Your task to perform on an android device: choose inbox layout in the gmail app Image 0: 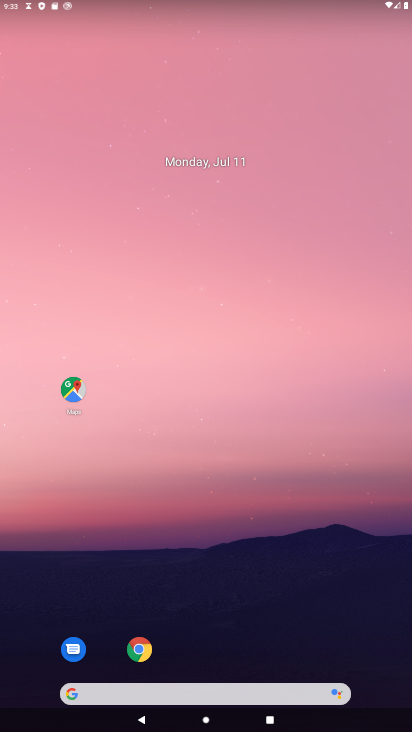
Step 0: drag from (201, 641) to (168, 10)
Your task to perform on an android device: choose inbox layout in the gmail app Image 1: 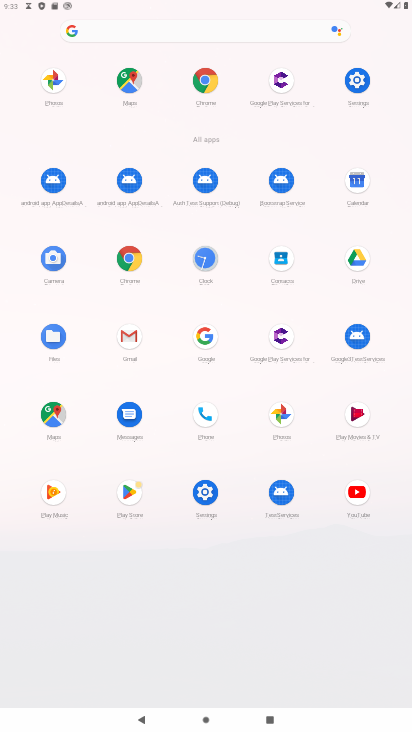
Step 1: click (128, 388)
Your task to perform on an android device: choose inbox layout in the gmail app Image 2: 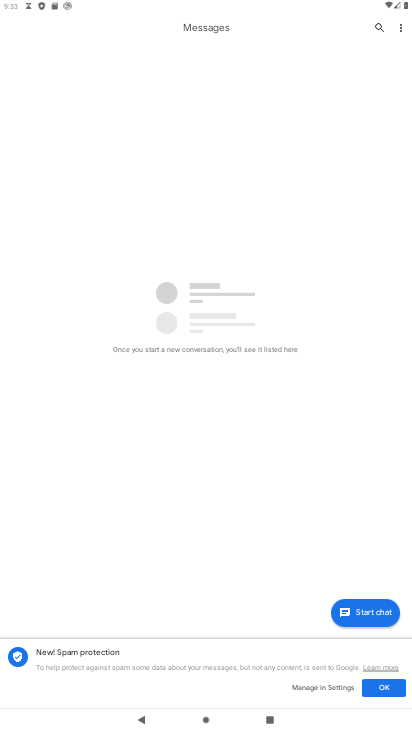
Step 2: press home button
Your task to perform on an android device: choose inbox layout in the gmail app Image 3: 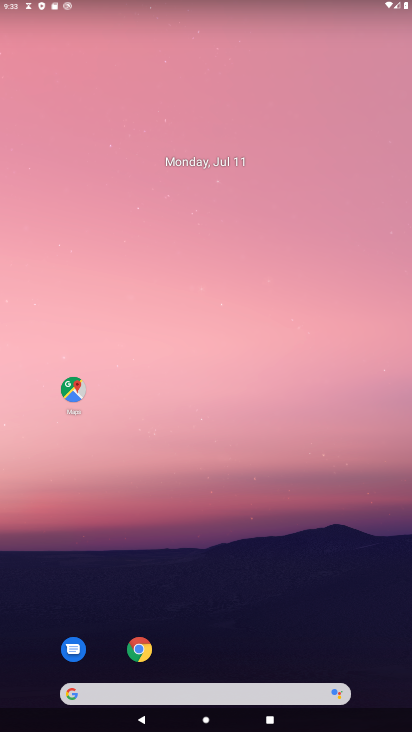
Step 3: drag from (219, 635) to (278, 13)
Your task to perform on an android device: choose inbox layout in the gmail app Image 4: 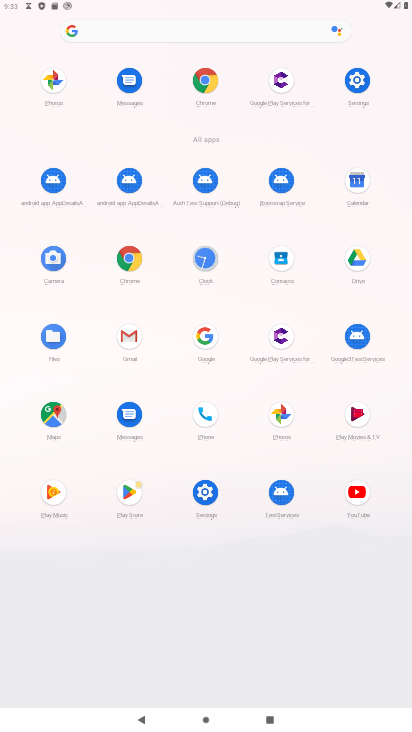
Step 4: click (129, 343)
Your task to perform on an android device: choose inbox layout in the gmail app Image 5: 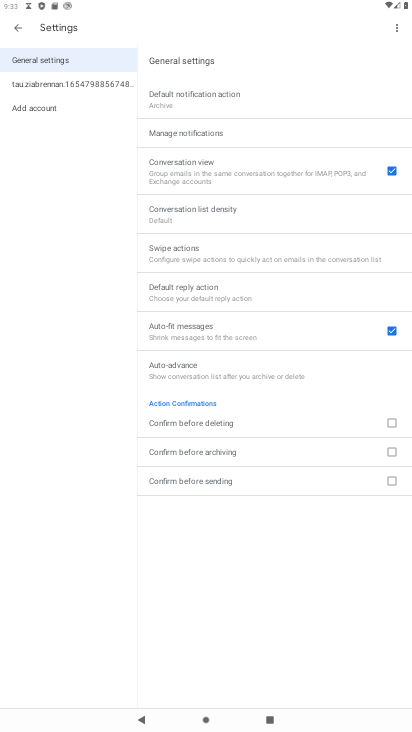
Step 5: click (52, 81)
Your task to perform on an android device: choose inbox layout in the gmail app Image 6: 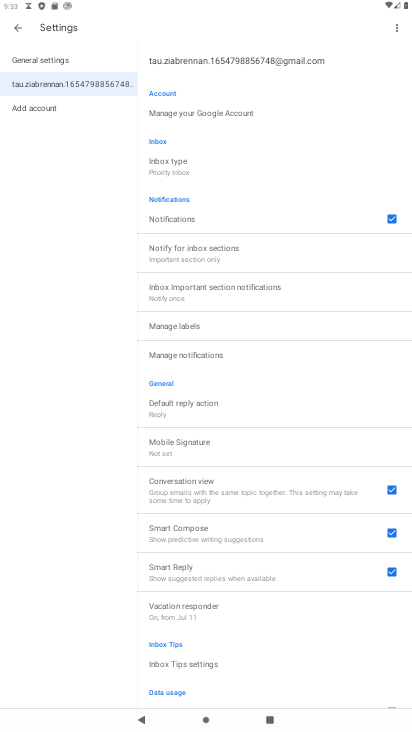
Step 6: click (190, 169)
Your task to perform on an android device: choose inbox layout in the gmail app Image 7: 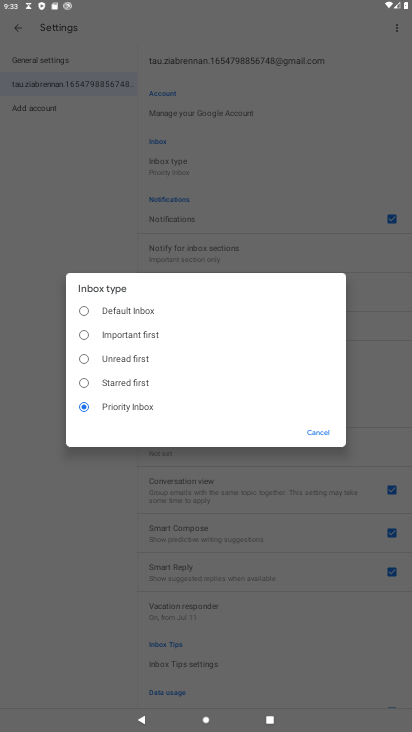
Step 7: click (127, 314)
Your task to perform on an android device: choose inbox layout in the gmail app Image 8: 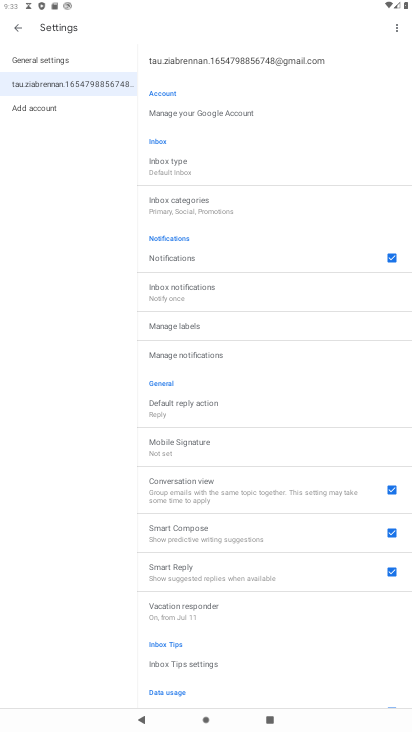
Step 8: task complete